Your task to perform on an android device: turn on priority inbox in the gmail app Image 0: 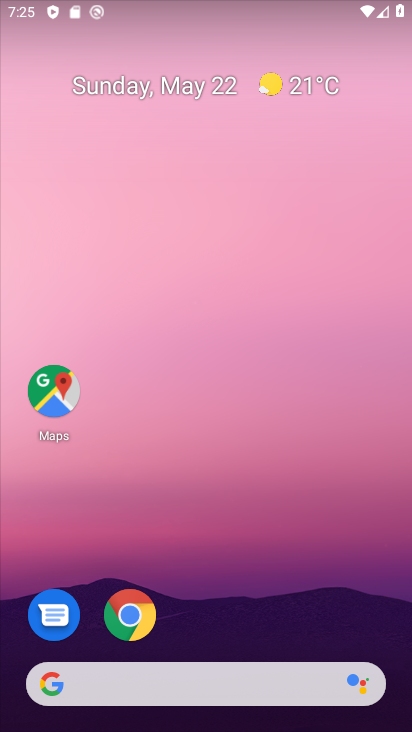
Step 0: drag from (291, 592) to (259, 274)
Your task to perform on an android device: turn on priority inbox in the gmail app Image 1: 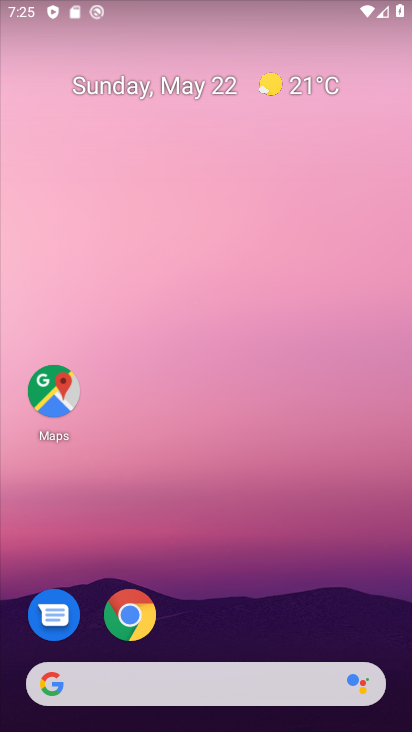
Step 1: drag from (221, 658) to (234, 260)
Your task to perform on an android device: turn on priority inbox in the gmail app Image 2: 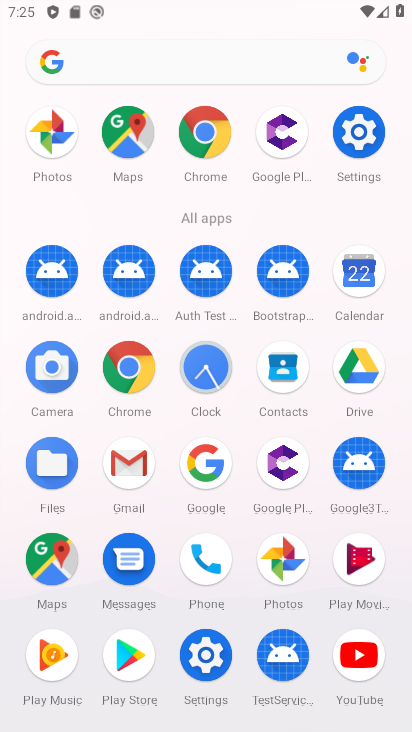
Step 2: click (116, 465)
Your task to perform on an android device: turn on priority inbox in the gmail app Image 3: 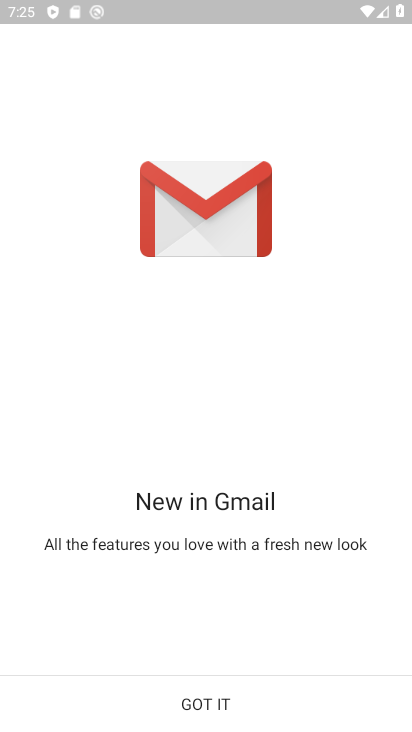
Step 3: click (205, 712)
Your task to perform on an android device: turn on priority inbox in the gmail app Image 4: 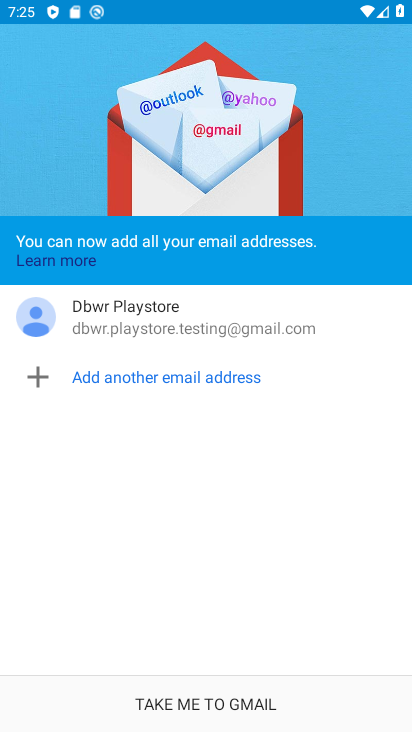
Step 4: click (208, 693)
Your task to perform on an android device: turn on priority inbox in the gmail app Image 5: 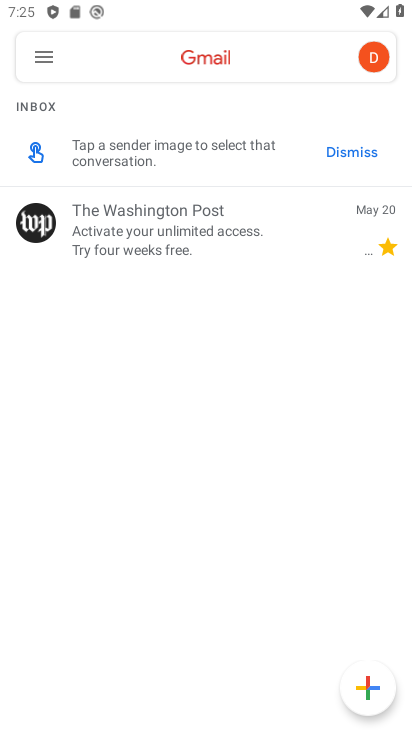
Step 5: click (45, 46)
Your task to perform on an android device: turn on priority inbox in the gmail app Image 6: 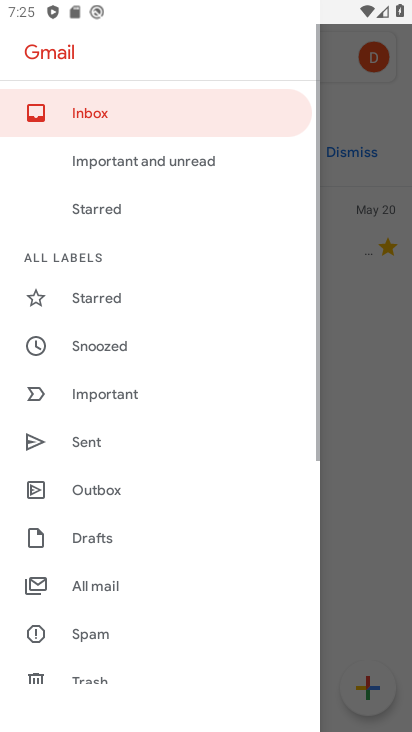
Step 6: drag from (141, 563) to (177, 176)
Your task to perform on an android device: turn on priority inbox in the gmail app Image 7: 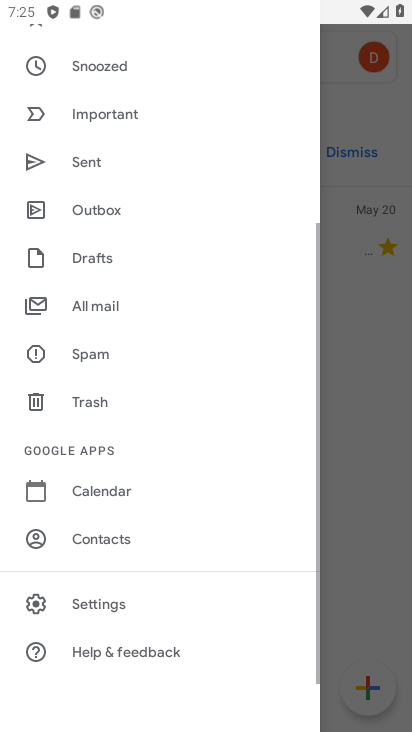
Step 7: click (121, 612)
Your task to perform on an android device: turn on priority inbox in the gmail app Image 8: 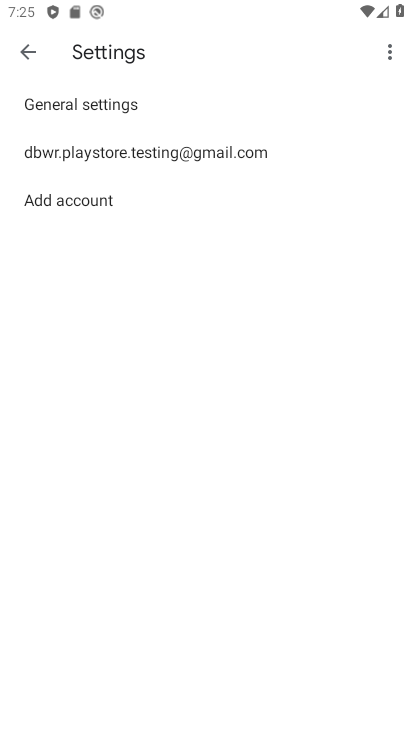
Step 8: click (133, 143)
Your task to perform on an android device: turn on priority inbox in the gmail app Image 9: 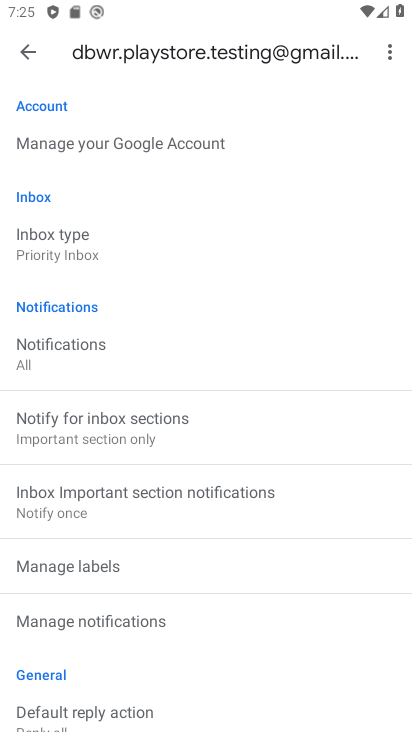
Step 9: click (78, 228)
Your task to perform on an android device: turn on priority inbox in the gmail app Image 10: 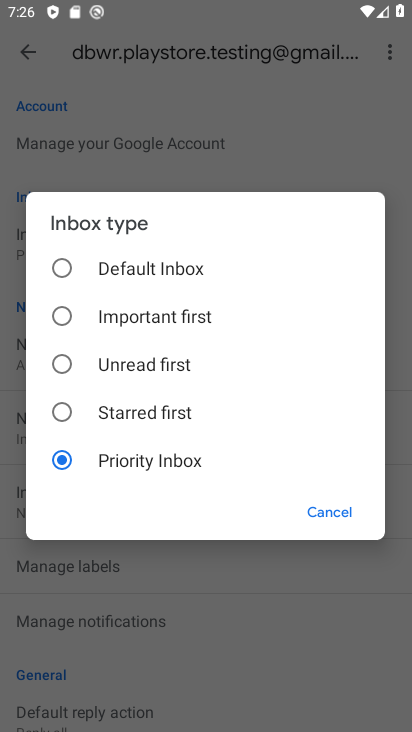
Step 10: task complete